Your task to perform on an android device: Open Maps and search for coffee Image 0: 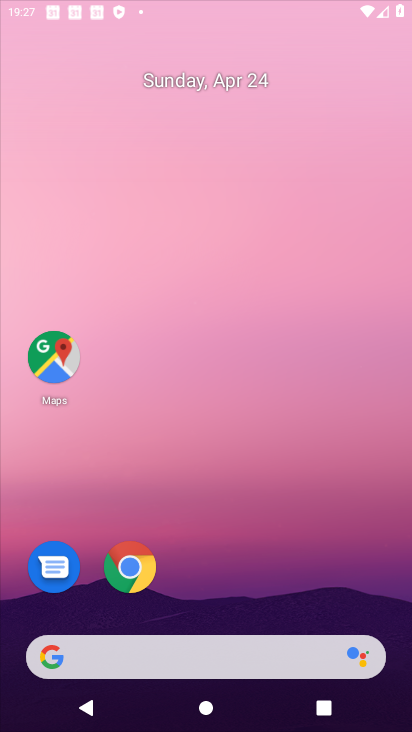
Step 0: drag from (267, 696) to (269, 212)
Your task to perform on an android device: Open Maps and search for coffee Image 1: 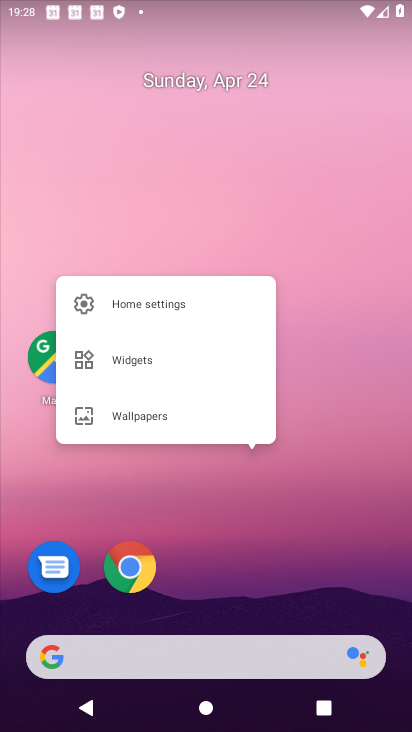
Step 1: click (338, 387)
Your task to perform on an android device: Open Maps and search for coffee Image 2: 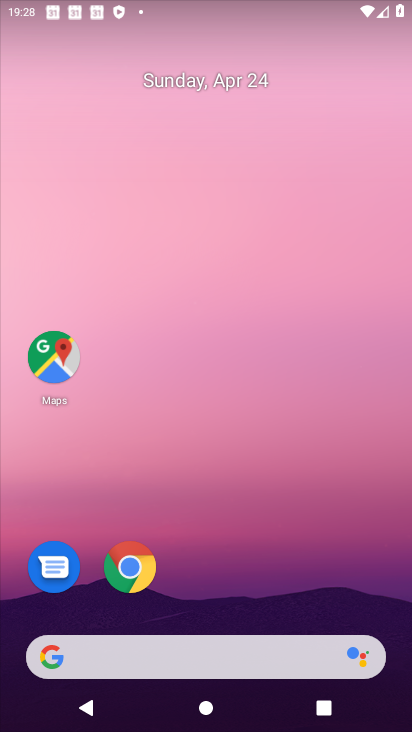
Step 2: drag from (229, 685) to (213, 374)
Your task to perform on an android device: Open Maps and search for coffee Image 3: 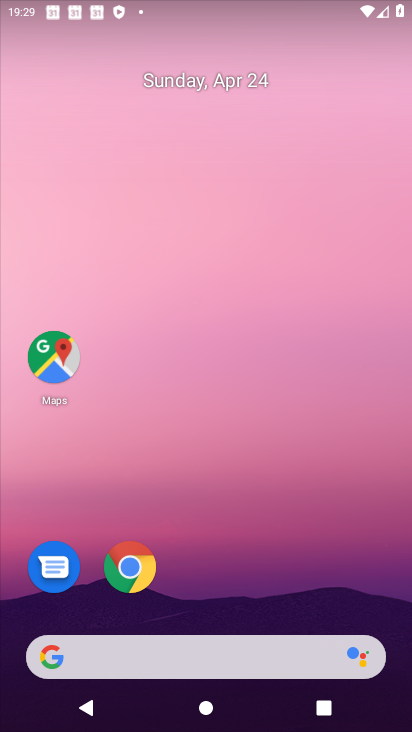
Step 3: drag from (279, 668) to (239, 91)
Your task to perform on an android device: Open Maps and search for coffee Image 4: 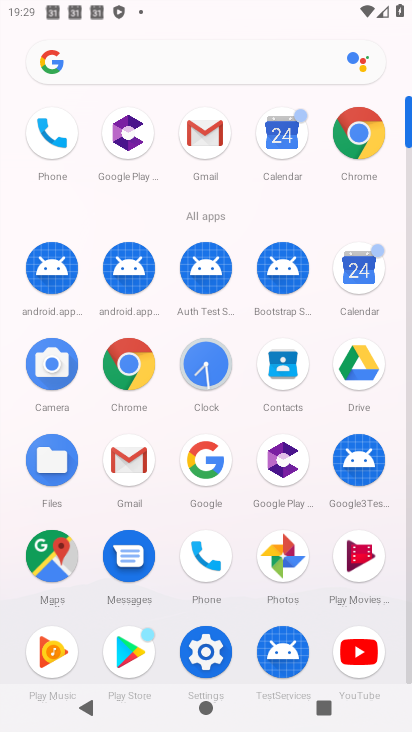
Step 4: click (60, 543)
Your task to perform on an android device: Open Maps and search for coffee Image 5: 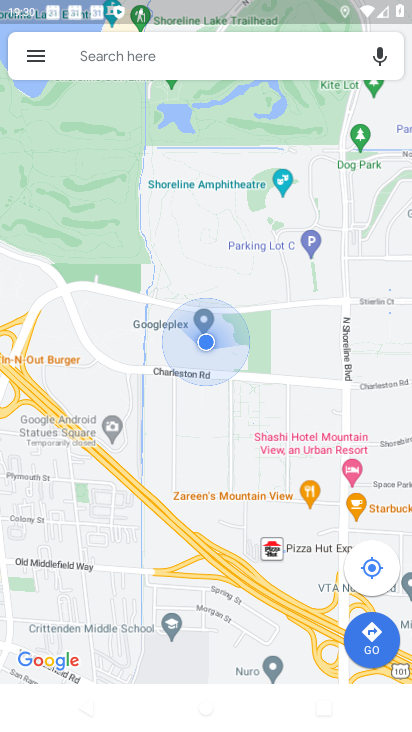
Step 5: click (206, 60)
Your task to perform on an android device: Open Maps and search for coffee Image 6: 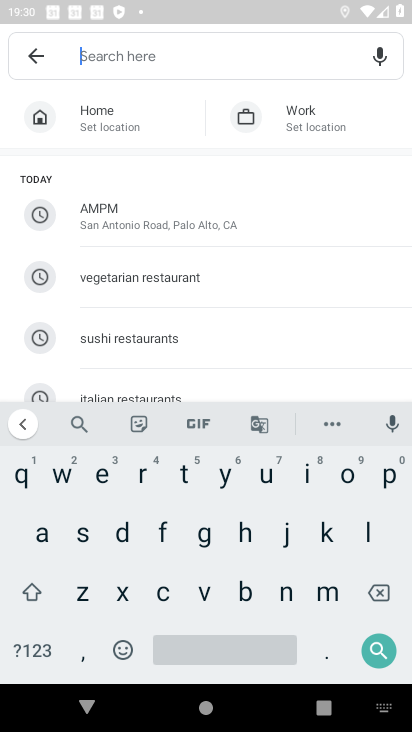
Step 6: click (165, 594)
Your task to perform on an android device: Open Maps and search for coffee Image 7: 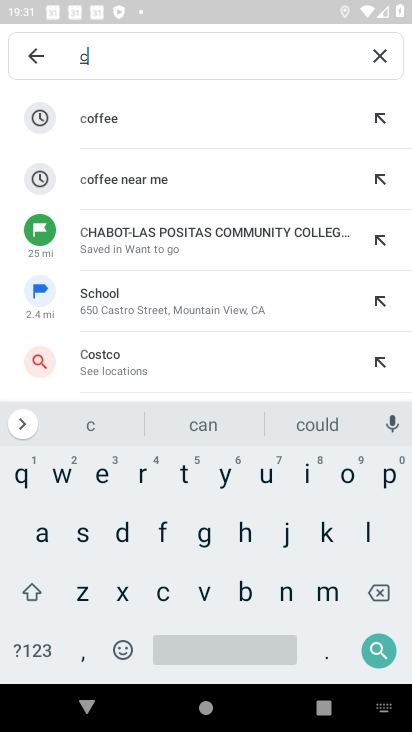
Step 7: click (141, 129)
Your task to perform on an android device: Open Maps and search for coffee Image 8: 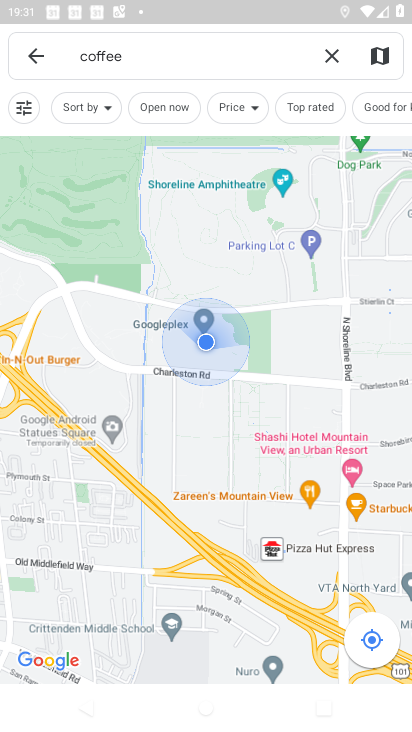
Step 8: task complete